Your task to perform on an android device: delete the emails in spam in the gmail app Image 0: 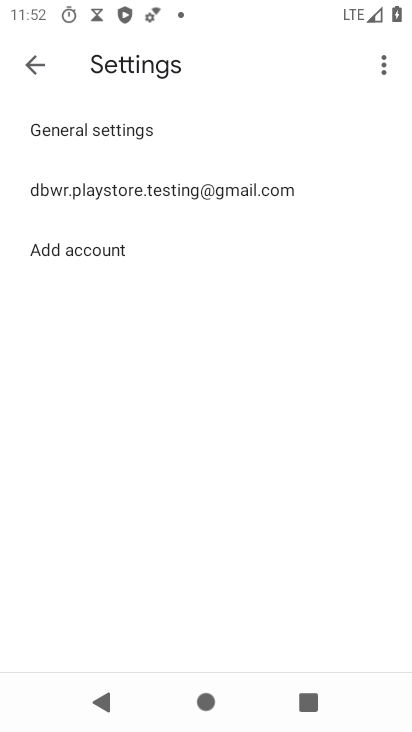
Step 0: press home button
Your task to perform on an android device: delete the emails in spam in the gmail app Image 1: 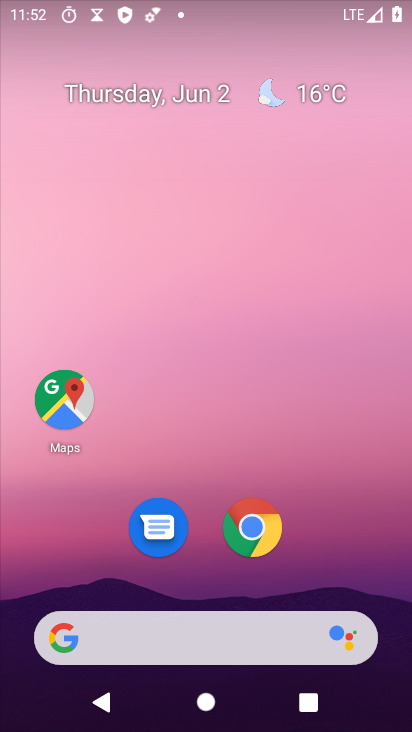
Step 1: drag from (230, 601) to (183, 18)
Your task to perform on an android device: delete the emails in spam in the gmail app Image 2: 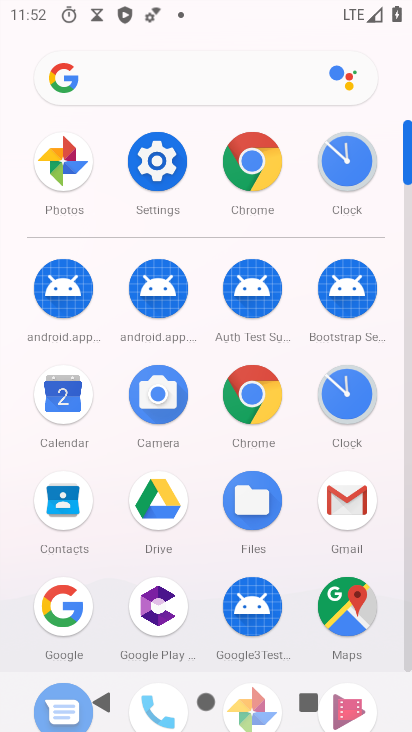
Step 2: click (328, 491)
Your task to perform on an android device: delete the emails in spam in the gmail app Image 3: 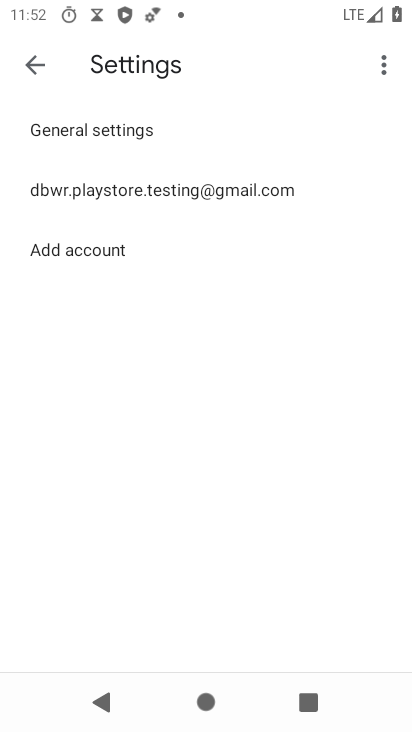
Step 3: click (33, 71)
Your task to perform on an android device: delete the emails in spam in the gmail app Image 4: 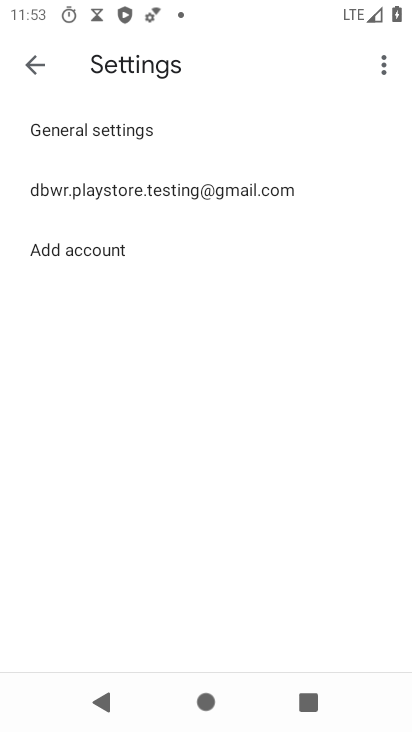
Step 4: click (37, 69)
Your task to perform on an android device: delete the emails in spam in the gmail app Image 5: 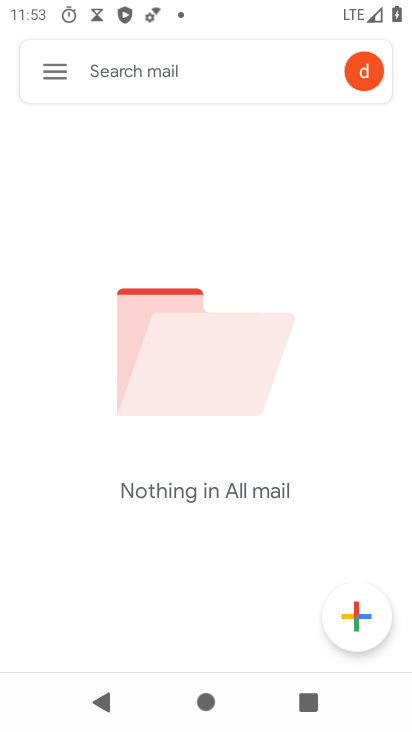
Step 5: click (53, 82)
Your task to perform on an android device: delete the emails in spam in the gmail app Image 6: 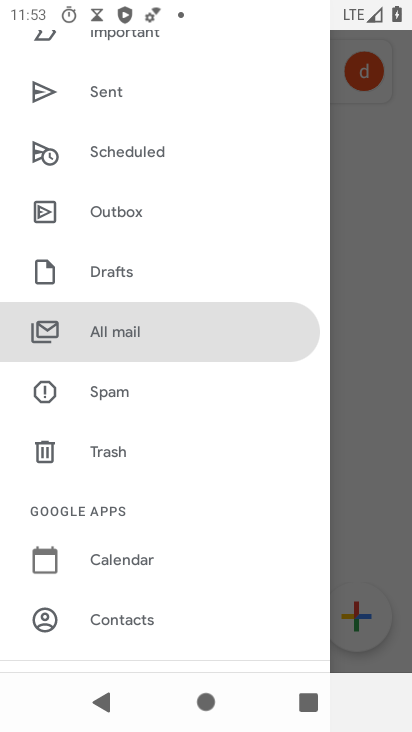
Step 6: click (112, 395)
Your task to perform on an android device: delete the emails in spam in the gmail app Image 7: 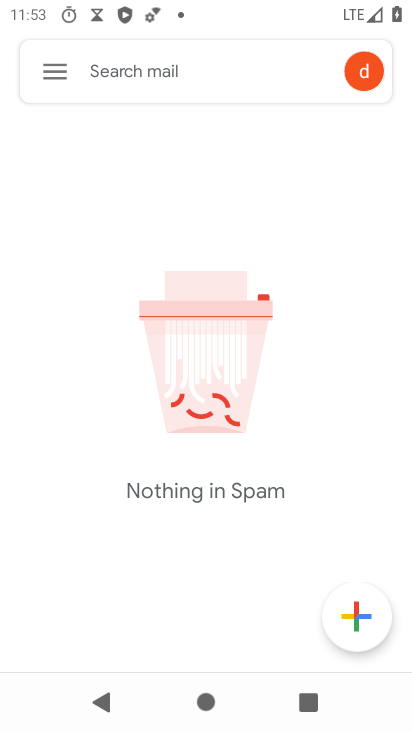
Step 7: task complete